Your task to perform on an android device: turn vacation reply on in the gmail app Image 0: 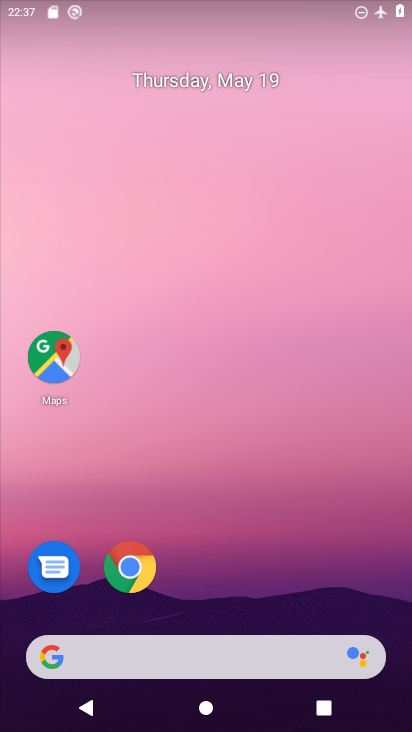
Step 0: drag from (200, 613) to (256, 43)
Your task to perform on an android device: turn vacation reply on in the gmail app Image 1: 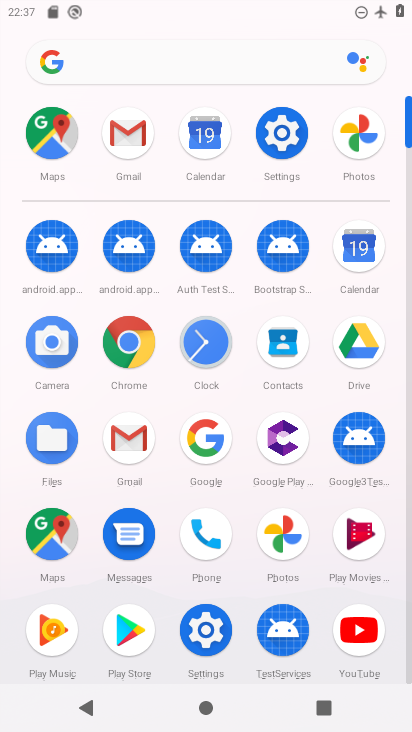
Step 1: click (123, 427)
Your task to perform on an android device: turn vacation reply on in the gmail app Image 2: 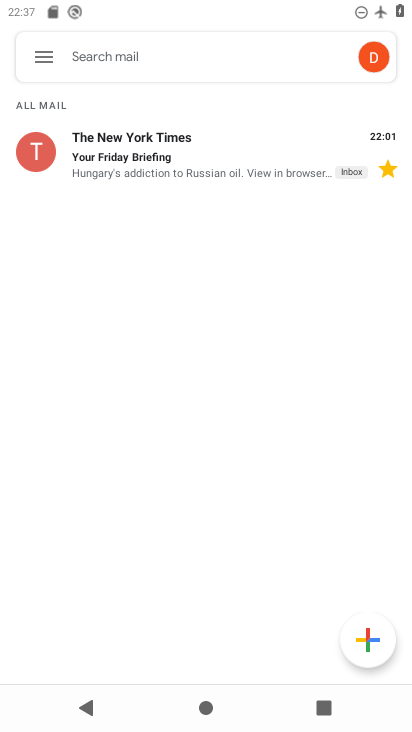
Step 2: click (33, 55)
Your task to perform on an android device: turn vacation reply on in the gmail app Image 3: 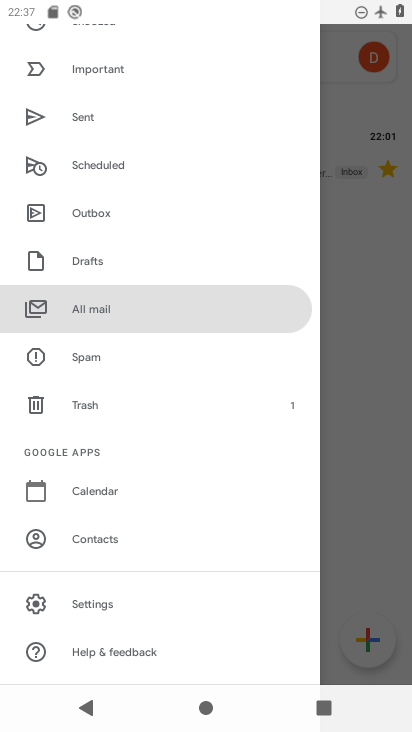
Step 3: click (126, 600)
Your task to perform on an android device: turn vacation reply on in the gmail app Image 4: 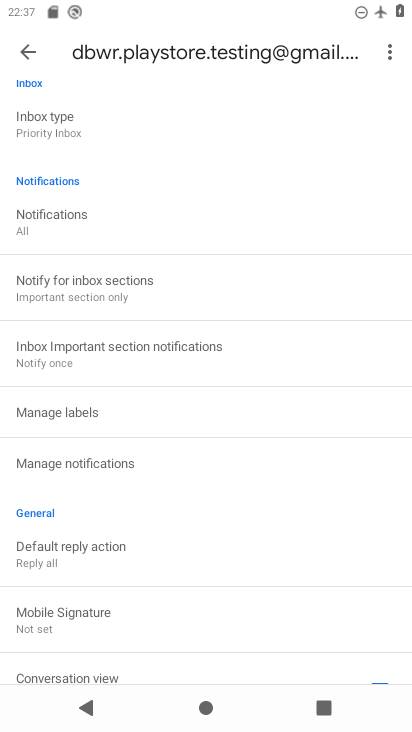
Step 4: drag from (174, 626) to (203, 82)
Your task to perform on an android device: turn vacation reply on in the gmail app Image 5: 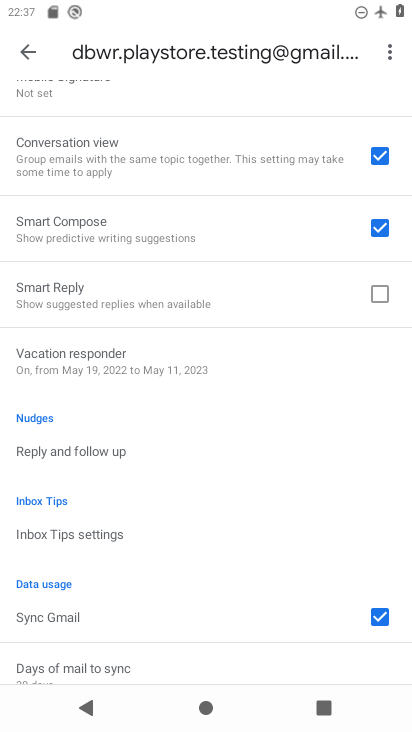
Step 5: click (155, 346)
Your task to perform on an android device: turn vacation reply on in the gmail app Image 6: 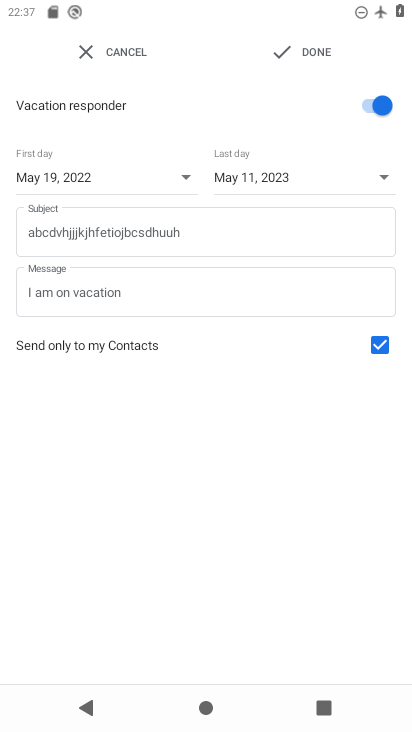
Step 6: task complete